Your task to perform on an android device: uninstall "LinkedIn" Image 0: 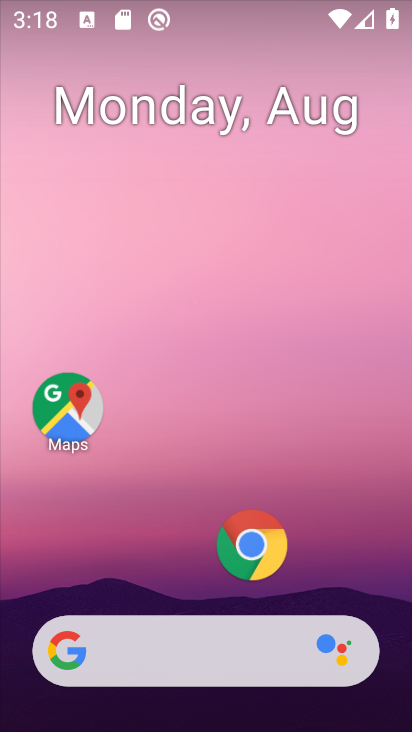
Step 0: drag from (143, 542) to (247, 122)
Your task to perform on an android device: uninstall "LinkedIn" Image 1: 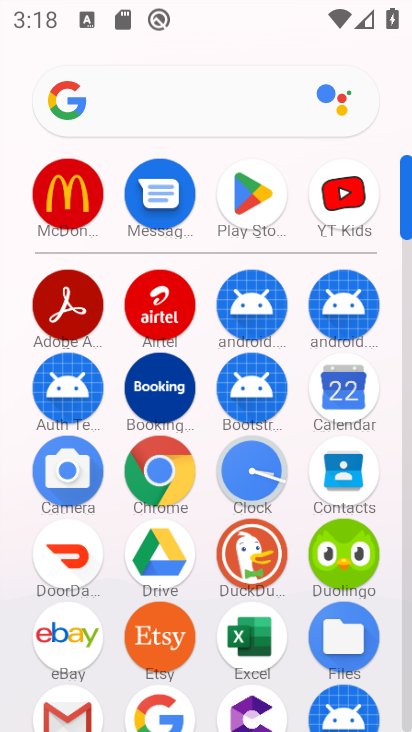
Step 1: click (245, 198)
Your task to perform on an android device: uninstall "LinkedIn" Image 2: 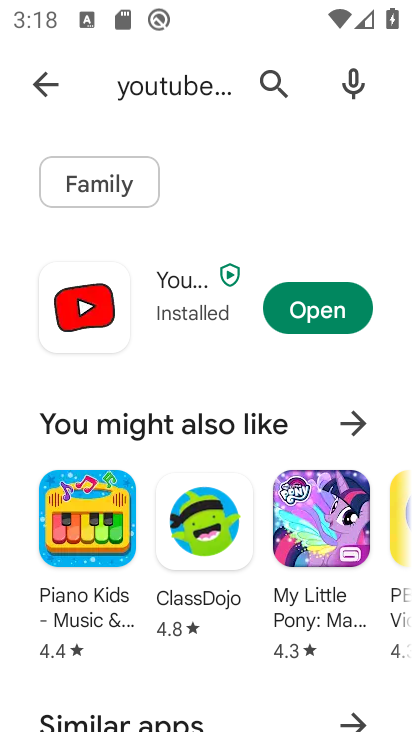
Step 2: click (286, 80)
Your task to perform on an android device: uninstall "LinkedIn" Image 3: 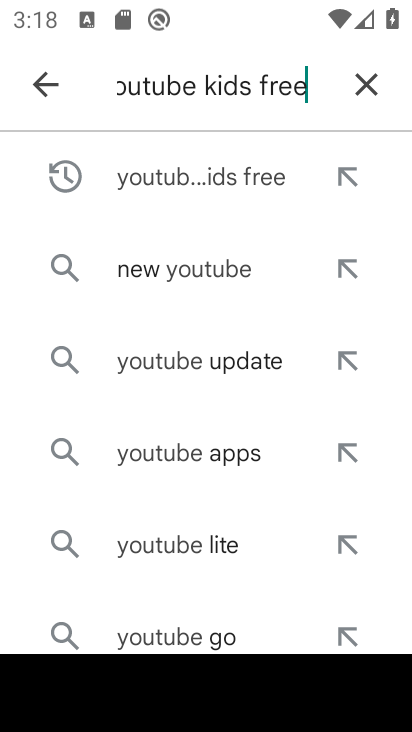
Step 3: click (360, 79)
Your task to perform on an android device: uninstall "LinkedIn" Image 4: 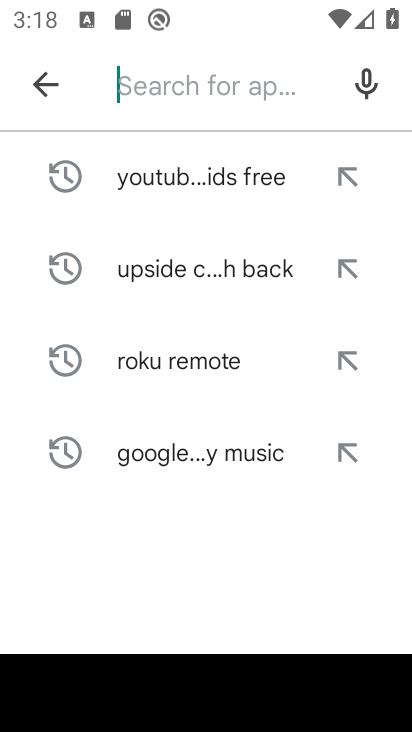
Step 4: click (125, 79)
Your task to perform on an android device: uninstall "LinkedIn" Image 5: 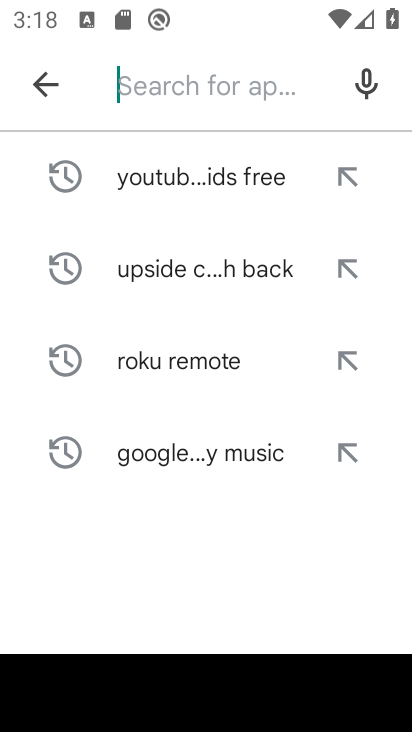
Step 5: click (189, 96)
Your task to perform on an android device: uninstall "LinkedIn" Image 6: 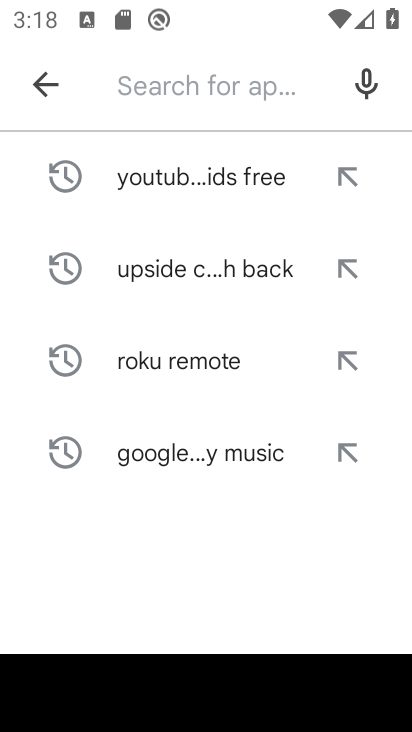
Step 6: type "LinkedIn"
Your task to perform on an android device: uninstall "LinkedIn" Image 7: 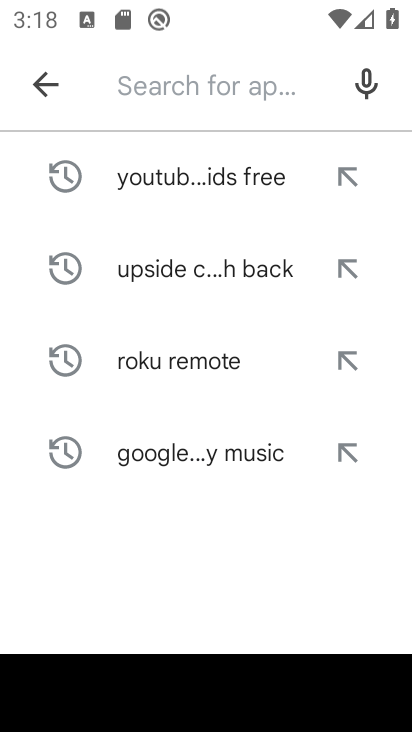
Step 7: click (239, 572)
Your task to perform on an android device: uninstall "LinkedIn" Image 8: 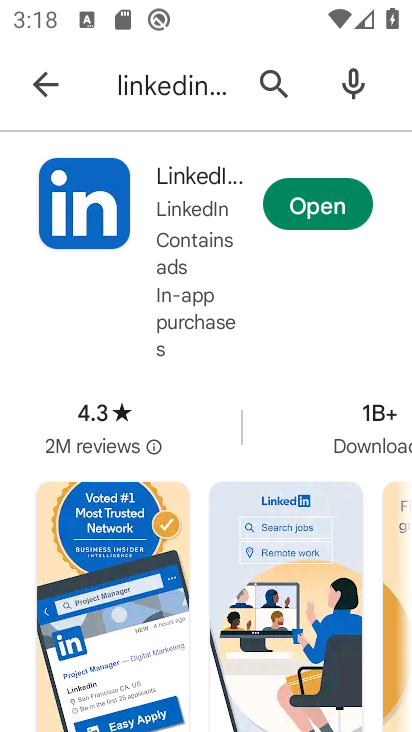
Step 8: click (166, 218)
Your task to perform on an android device: uninstall "LinkedIn" Image 9: 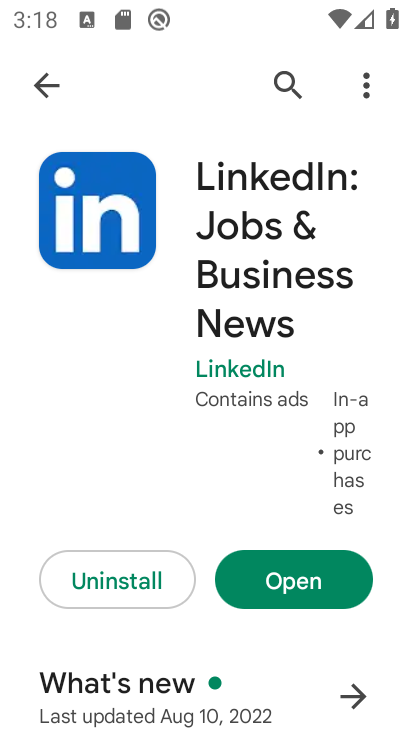
Step 9: click (127, 580)
Your task to perform on an android device: uninstall "LinkedIn" Image 10: 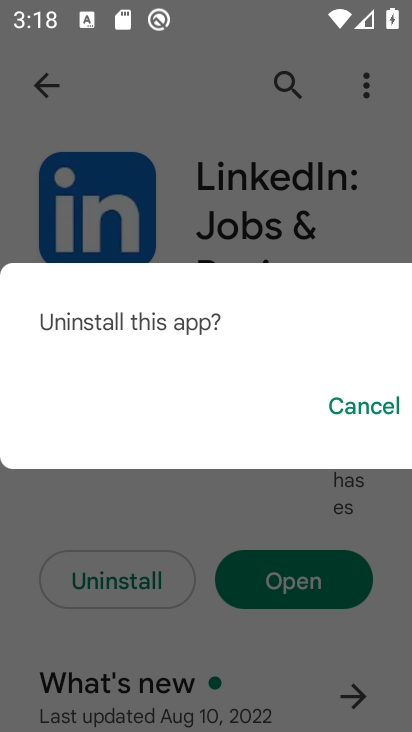
Step 10: click (80, 415)
Your task to perform on an android device: uninstall "LinkedIn" Image 11: 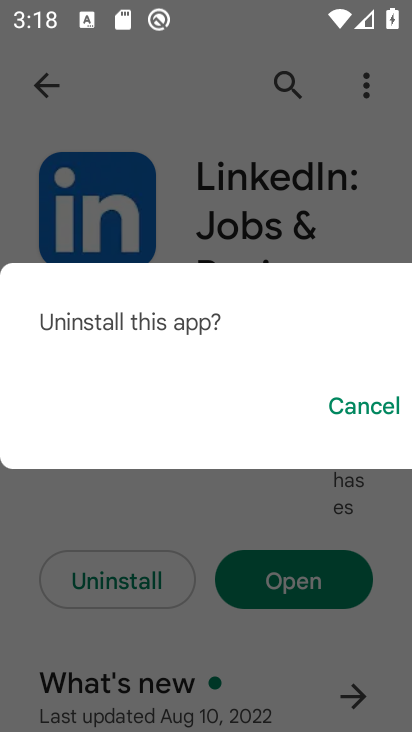
Step 11: task complete